Your task to perform on an android device: Show me productivity apps on the Play Store Image 0: 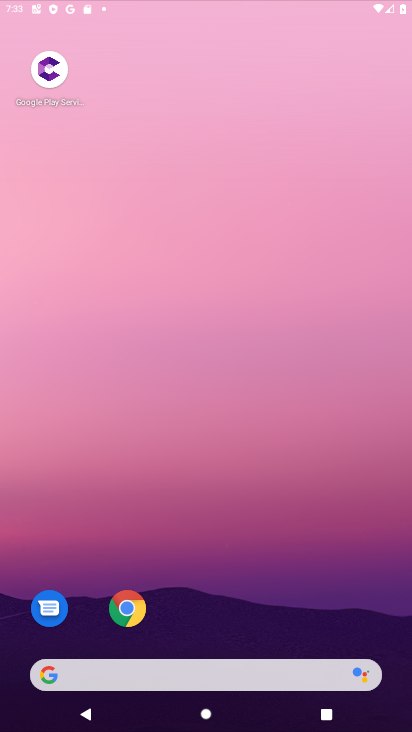
Step 0: press home button
Your task to perform on an android device: Show me productivity apps on the Play Store Image 1: 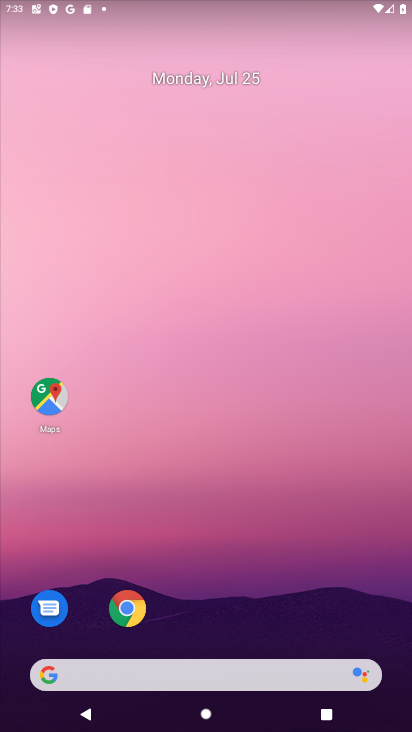
Step 1: drag from (261, 401) to (315, 23)
Your task to perform on an android device: Show me productivity apps on the Play Store Image 2: 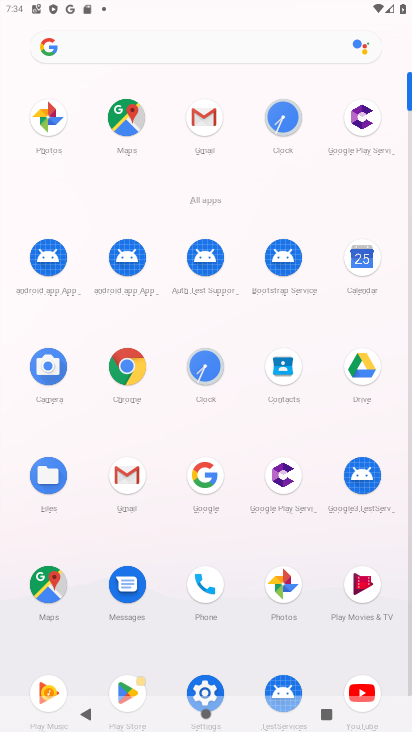
Step 2: drag from (201, 488) to (192, 158)
Your task to perform on an android device: Show me productivity apps on the Play Store Image 3: 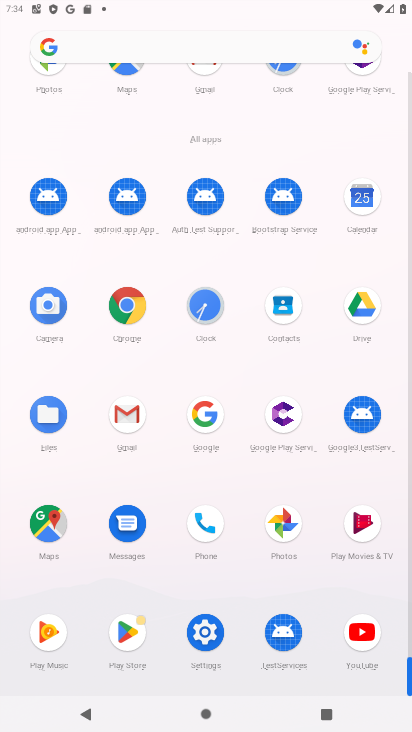
Step 3: click (127, 645)
Your task to perform on an android device: Show me productivity apps on the Play Store Image 4: 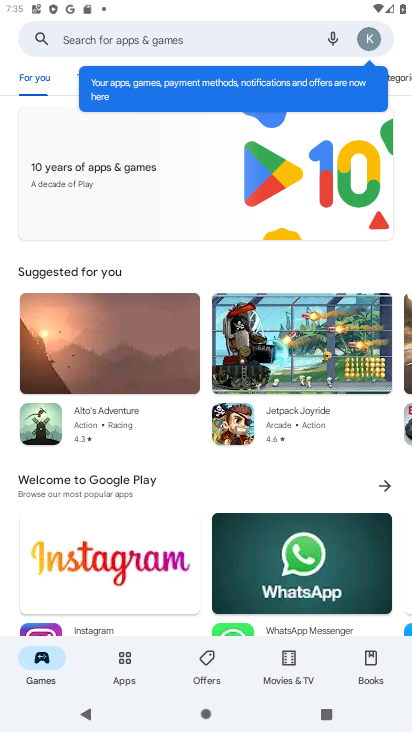
Step 4: click (150, 36)
Your task to perform on an android device: Show me productivity apps on the Play Store Image 5: 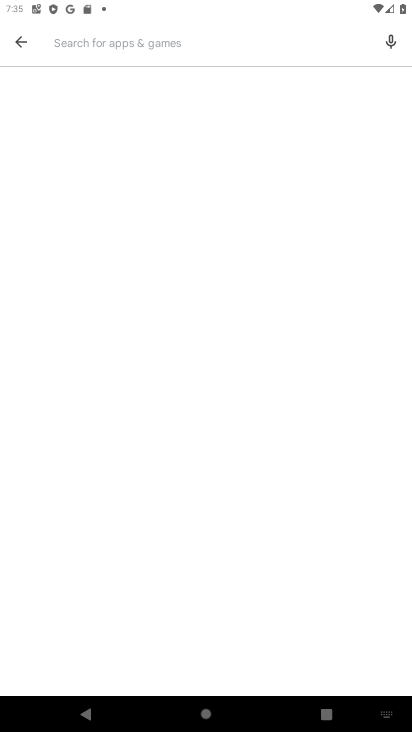
Step 5: type "productivity aaps"
Your task to perform on an android device: Show me productivity apps on the Play Store Image 6: 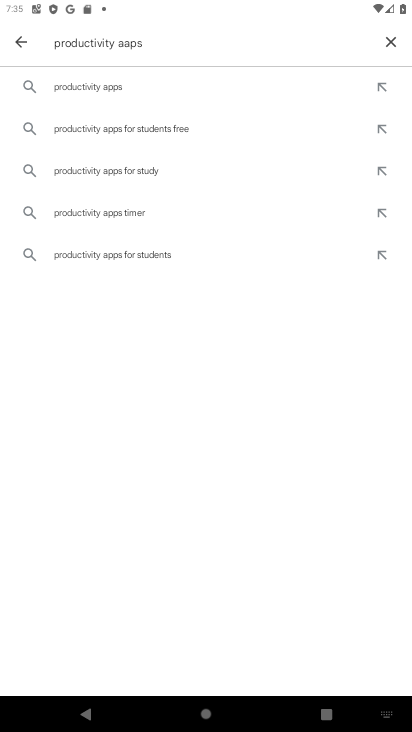
Step 6: click (148, 87)
Your task to perform on an android device: Show me productivity apps on the Play Store Image 7: 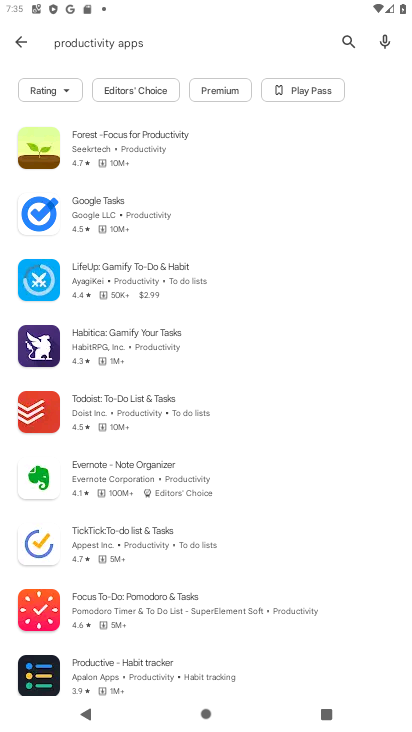
Step 7: task complete